Your task to perform on an android device: move a message to another label in the gmail app Image 0: 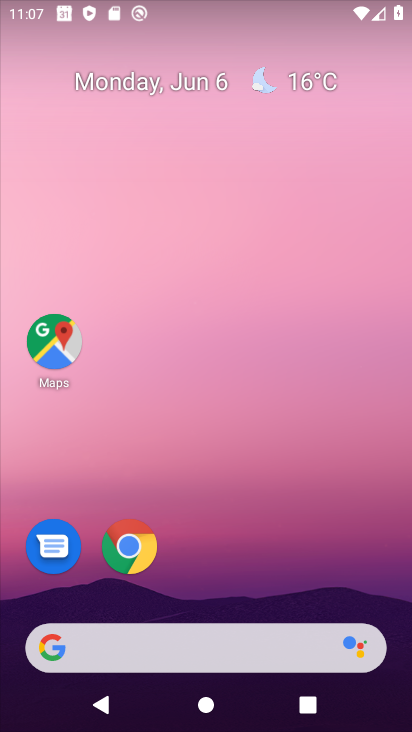
Step 0: drag from (242, 543) to (264, 153)
Your task to perform on an android device: move a message to another label in the gmail app Image 1: 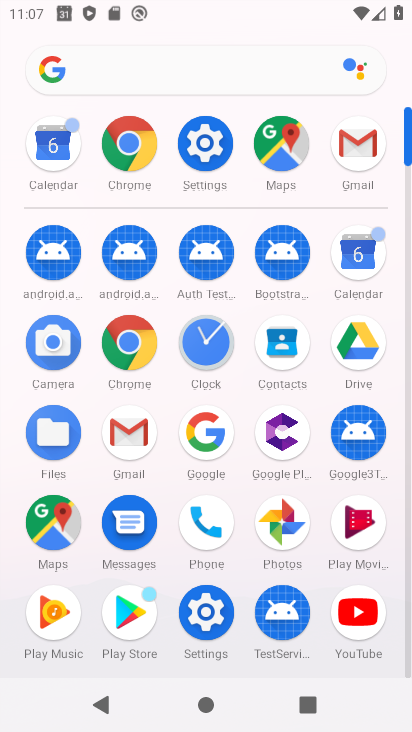
Step 1: click (359, 150)
Your task to perform on an android device: move a message to another label in the gmail app Image 2: 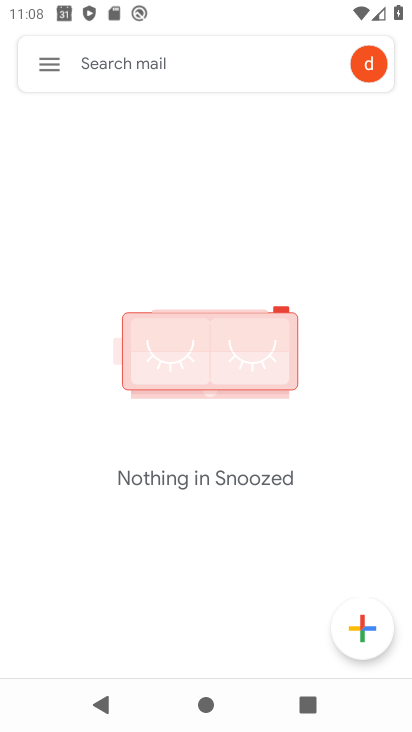
Step 2: click (48, 66)
Your task to perform on an android device: move a message to another label in the gmail app Image 3: 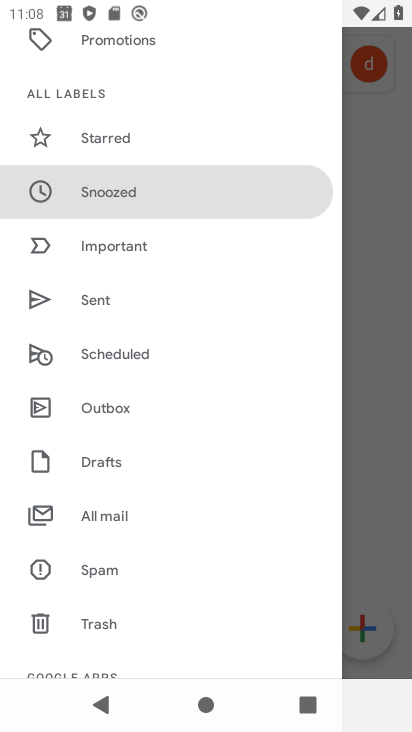
Step 3: click (101, 515)
Your task to perform on an android device: move a message to another label in the gmail app Image 4: 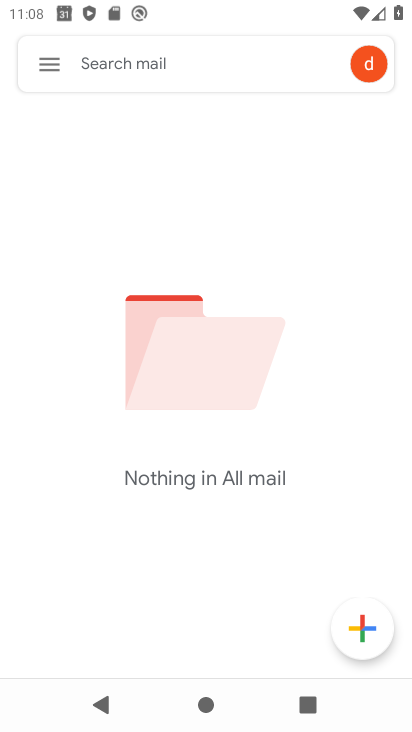
Step 4: task complete